Your task to perform on an android device: open a bookmark in the chrome app Image 0: 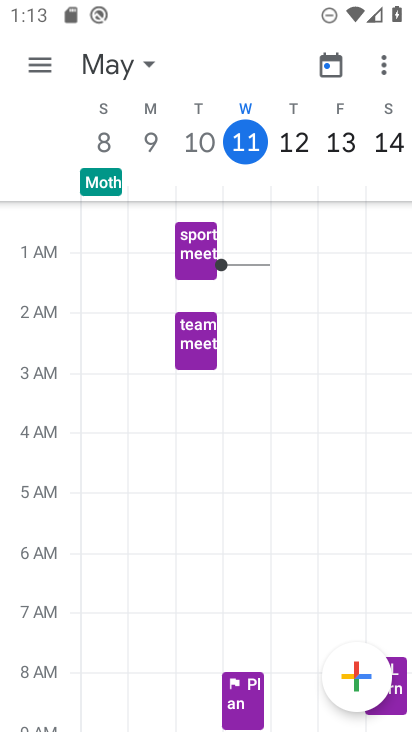
Step 0: press home button
Your task to perform on an android device: open a bookmark in the chrome app Image 1: 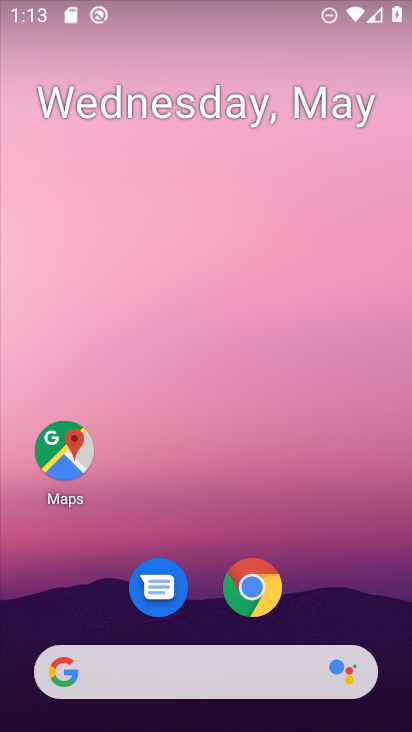
Step 1: click (272, 624)
Your task to perform on an android device: open a bookmark in the chrome app Image 2: 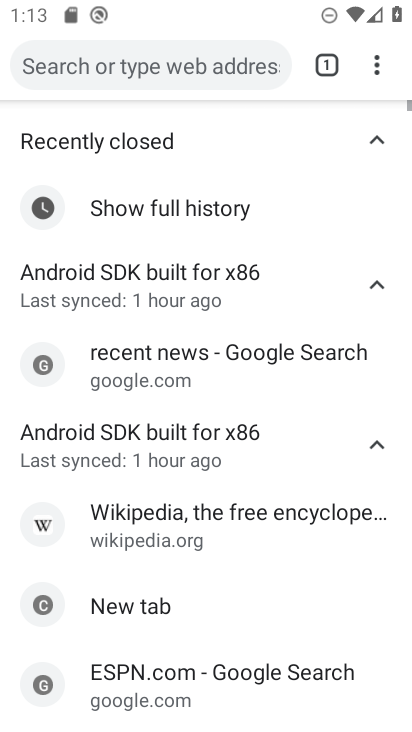
Step 2: click (367, 62)
Your task to perform on an android device: open a bookmark in the chrome app Image 3: 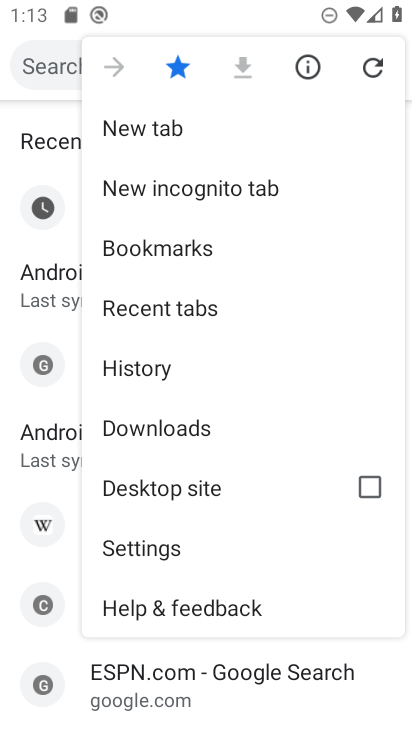
Step 3: click (234, 239)
Your task to perform on an android device: open a bookmark in the chrome app Image 4: 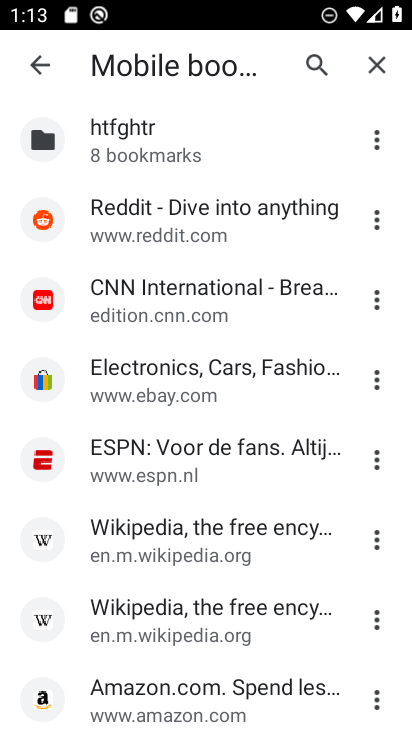
Step 4: click (229, 244)
Your task to perform on an android device: open a bookmark in the chrome app Image 5: 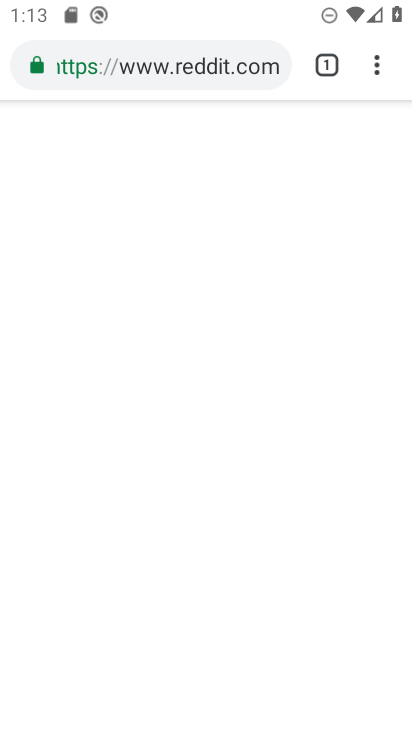
Step 5: task complete